Your task to perform on an android device: change alarm snooze length Image 0: 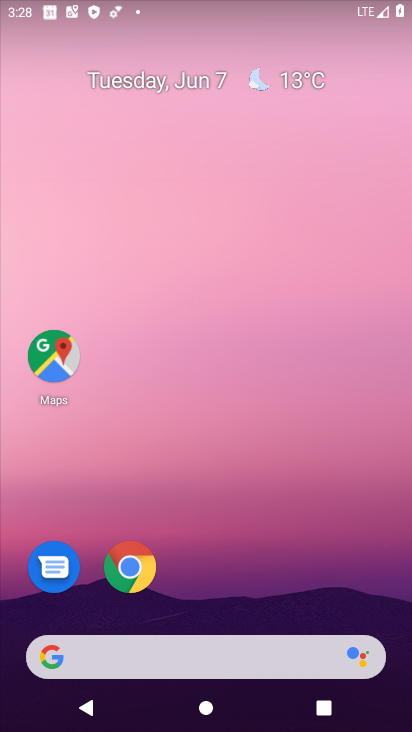
Step 0: drag from (155, 510) to (153, 66)
Your task to perform on an android device: change alarm snooze length Image 1: 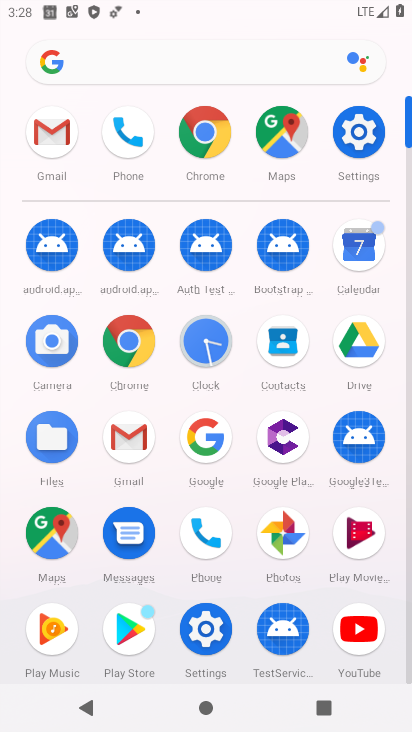
Step 1: click (199, 344)
Your task to perform on an android device: change alarm snooze length Image 2: 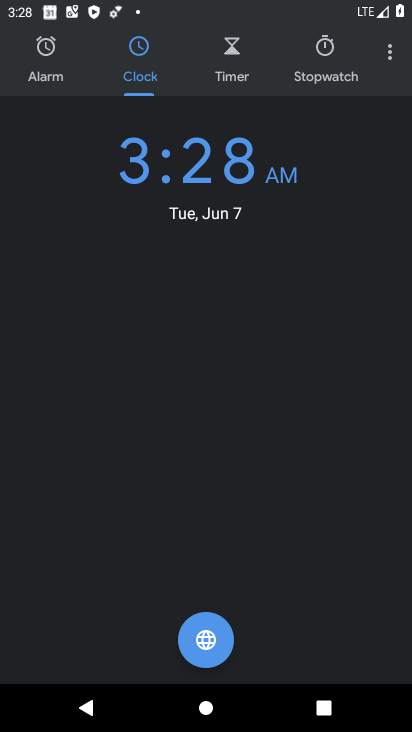
Step 2: click (385, 54)
Your task to perform on an android device: change alarm snooze length Image 3: 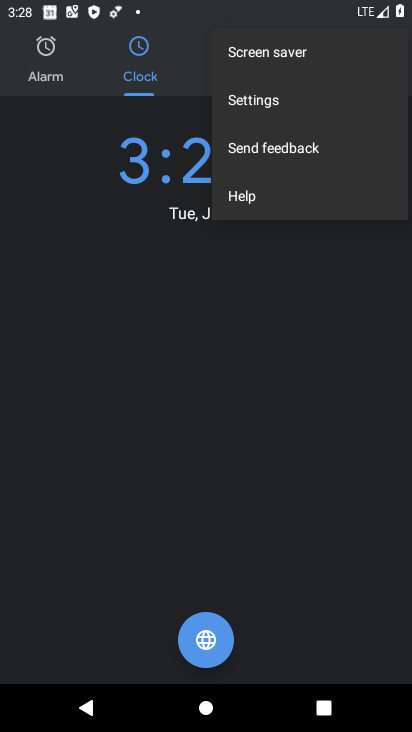
Step 3: click (291, 112)
Your task to perform on an android device: change alarm snooze length Image 4: 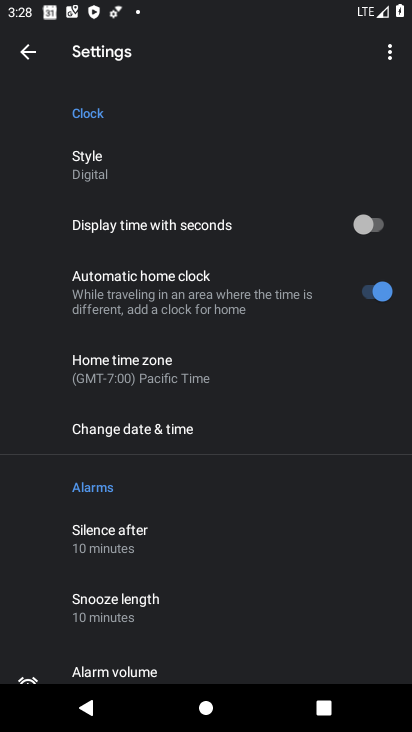
Step 4: click (155, 609)
Your task to perform on an android device: change alarm snooze length Image 5: 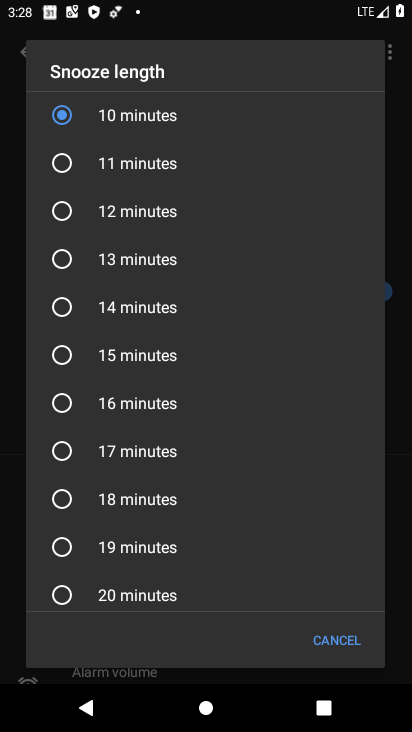
Step 5: click (66, 222)
Your task to perform on an android device: change alarm snooze length Image 6: 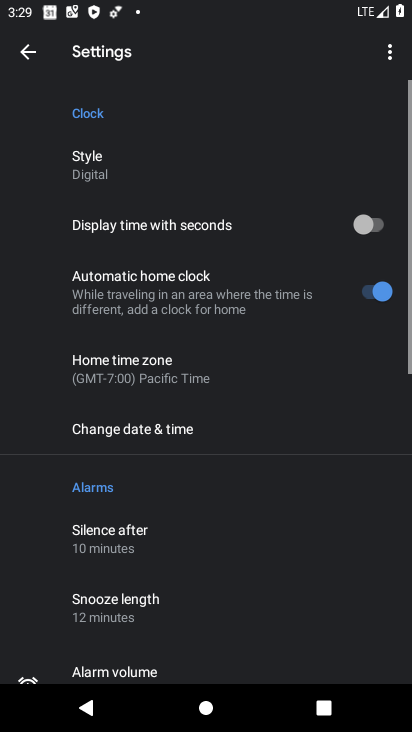
Step 6: task complete